Your task to perform on an android device: open device folders in google photos Image 0: 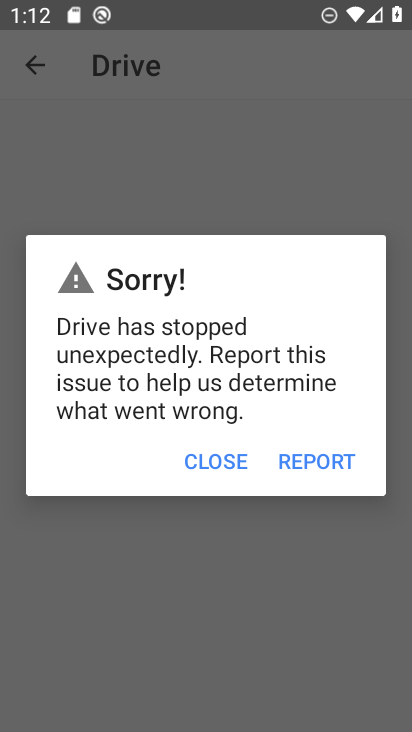
Step 0: press home button
Your task to perform on an android device: open device folders in google photos Image 1: 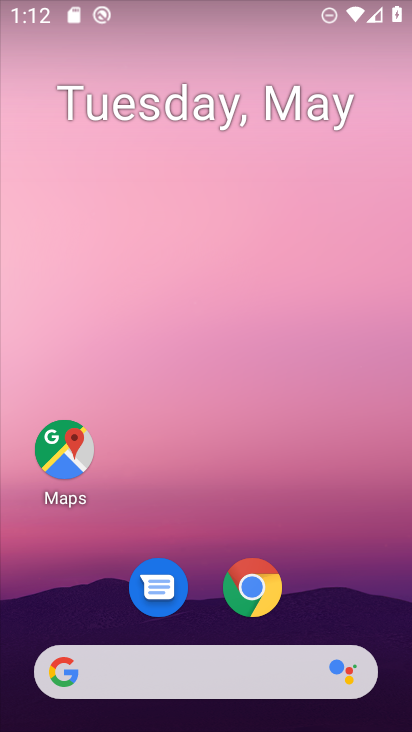
Step 1: drag from (203, 619) to (95, 21)
Your task to perform on an android device: open device folders in google photos Image 2: 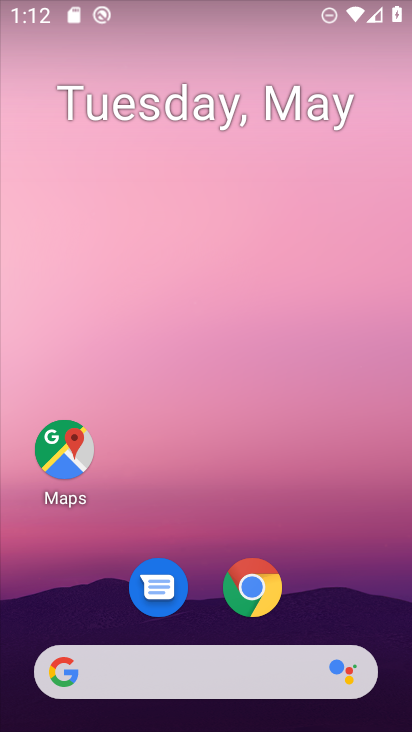
Step 2: drag from (207, 624) to (272, 42)
Your task to perform on an android device: open device folders in google photos Image 3: 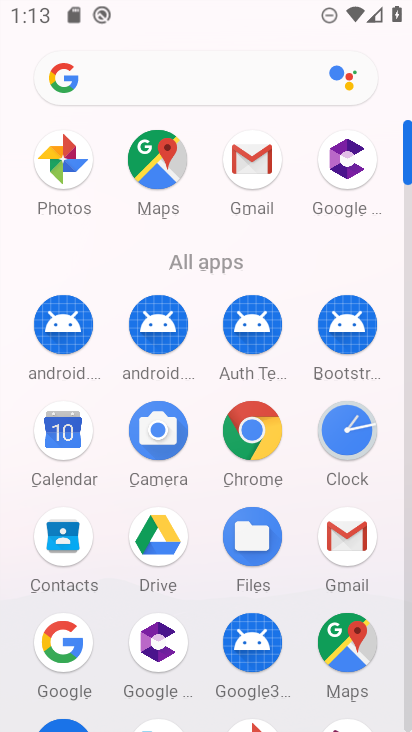
Step 3: click (81, 182)
Your task to perform on an android device: open device folders in google photos Image 4: 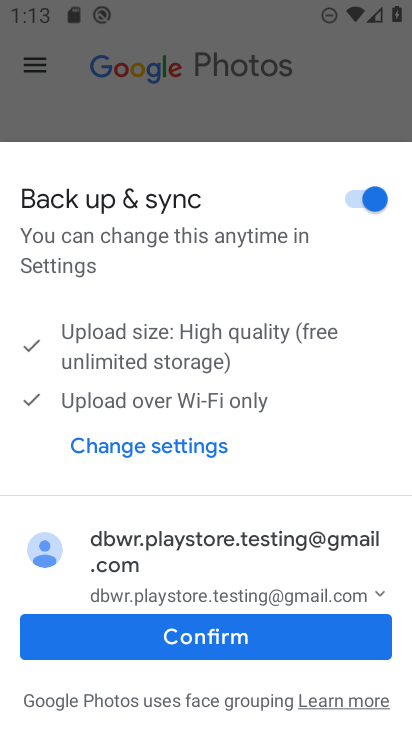
Step 4: click (189, 633)
Your task to perform on an android device: open device folders in google photos Image 5: 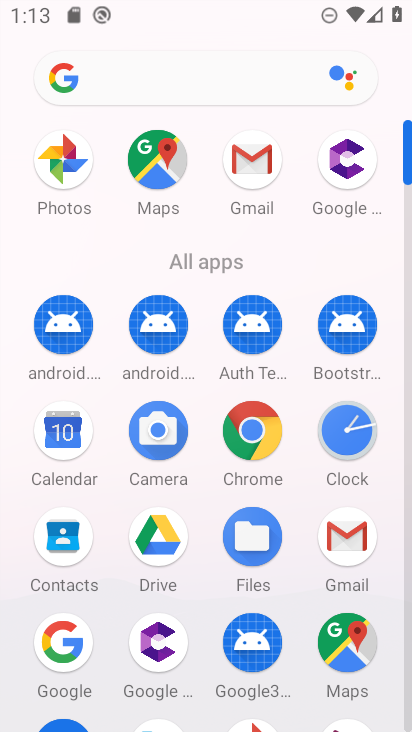
Step 5: click (72, 137)
Your task to perform on an android device: open device folders in google photos Image 6: 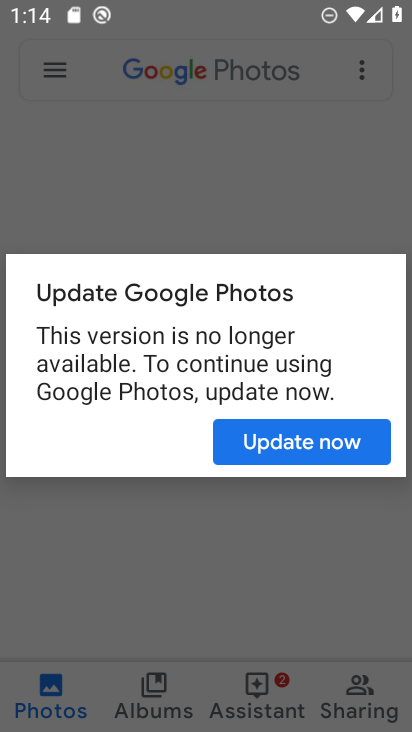
Step 6: press home button
Your task to perform on an android device: open device folders in google photos Image 7: 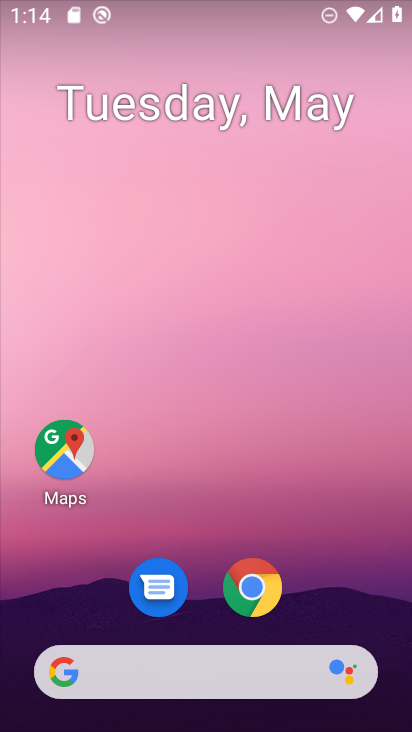
Step 7: drag from (221, 630) to (228, 265)
Your task to perform on an android device: open device folders in google photos Image 8: 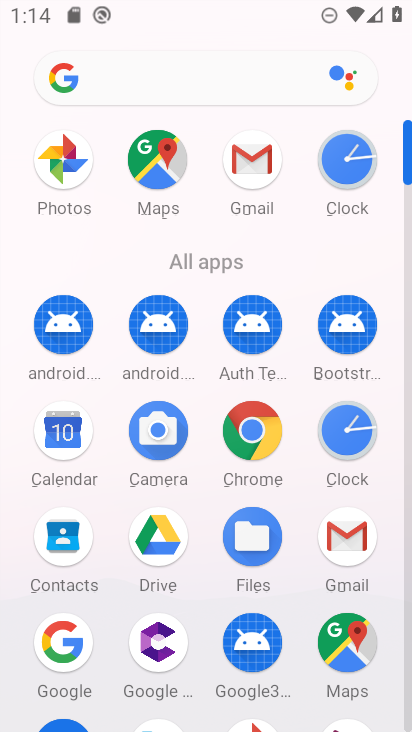
Step 8: click (65, 171)
Your task to perform on an android device: open device folders in google photos Image 9: 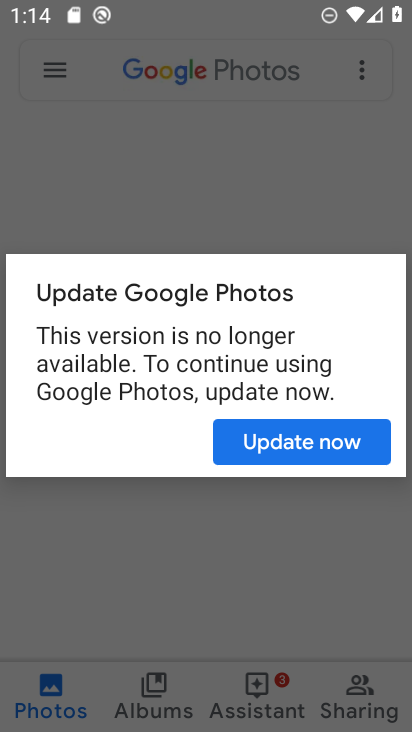
Step 9: click (311, 440)
Your task to perform on an android device: open device folders in google photos Image 10: 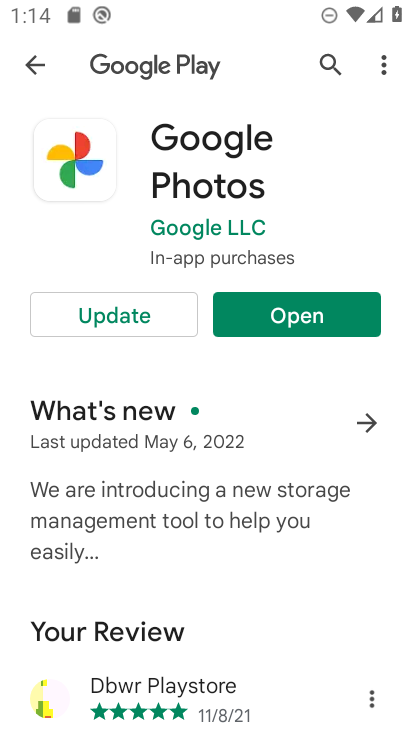
Step 10: click (243, 328)
Your task to perform on an android device: open device folders in google photos Image 11: 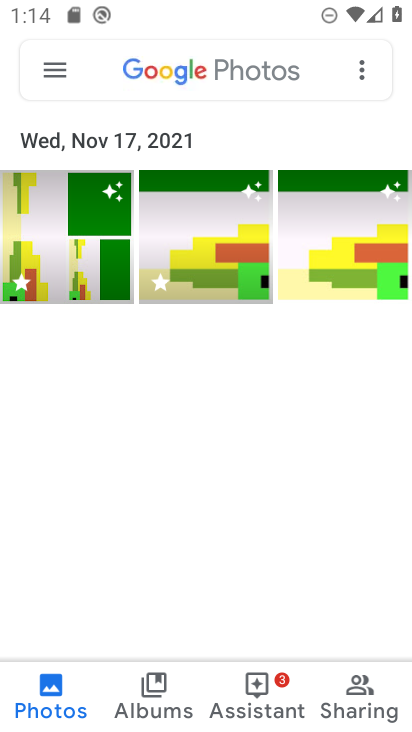
Step 11: click (39, 79)
Your task to perform on an android device: open device folders in google photos Image 12: 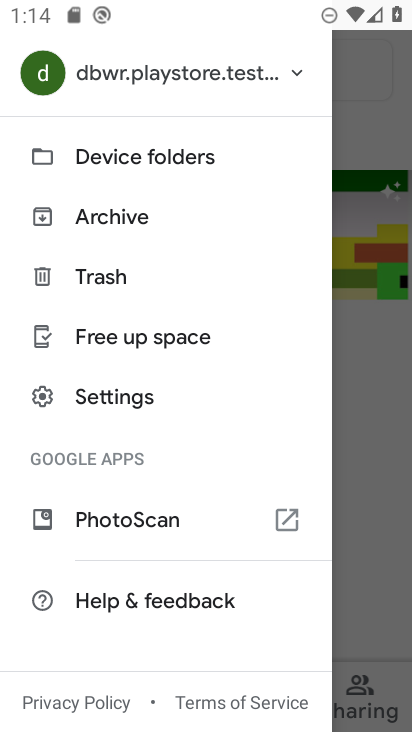
Step 12: click (200, 165)
Your task to perform on an android device: open device folders in google photos Image 13: 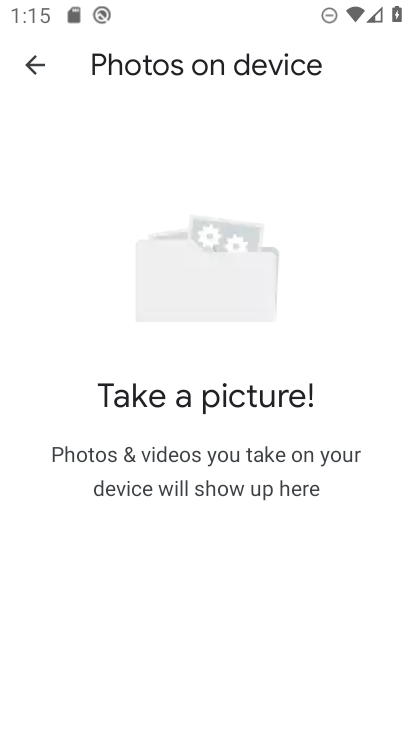
Step 13: task complete